Your task to perform on an android device: find photos in the google photos app Image 0: 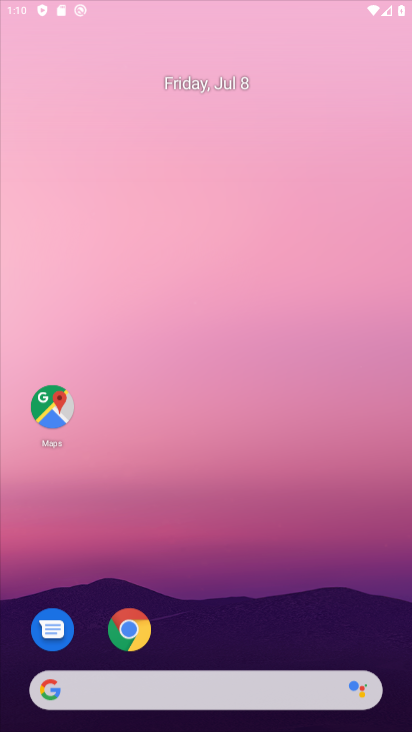
Step 0: press back button
Your task to perform on an android device: find photos in the google photos app Image 1: 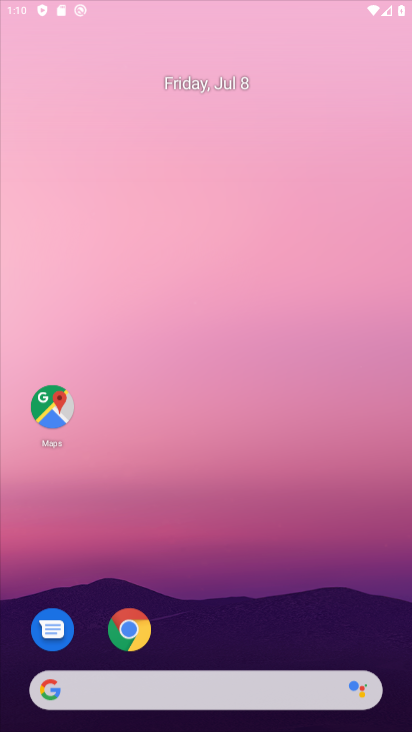
Step 1: click (172, 197)
Your task to perform on an android device: find photos in the google photos app Image 2: 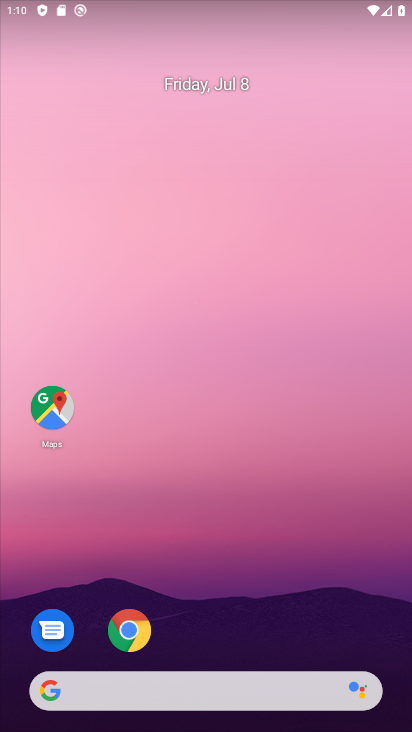
Step 2: drag from (263, 582) to (223, 160)
Your task to perform on an android device: find photos in the google photos app Image 3: 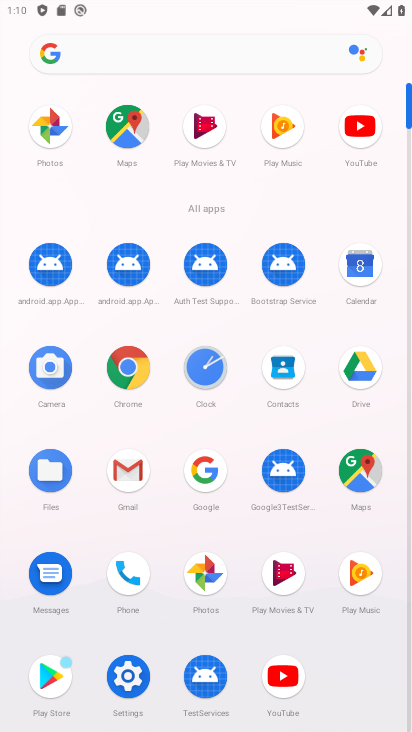
Step 3: click (200, 564)
Your task to perform on an android device: find photos in the google photos app Image 4: 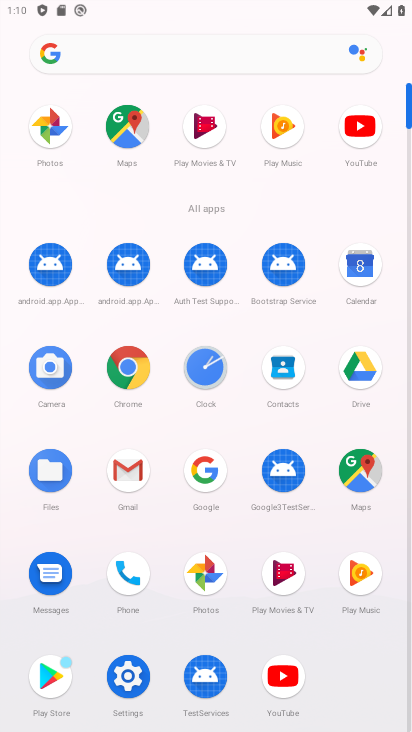
Step 4: click (200, 564)
Your task to perform on an android device: find photos in the google photos app Image 5: 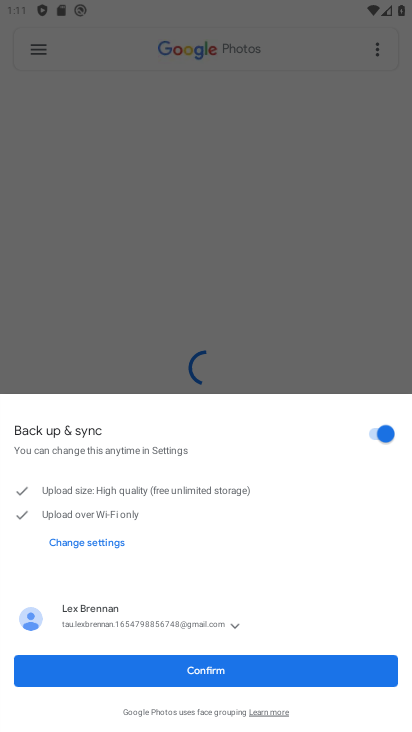
Step 5: click (233, 672)
Your task to perform on an android device: find photos in the google photos app Image 6: 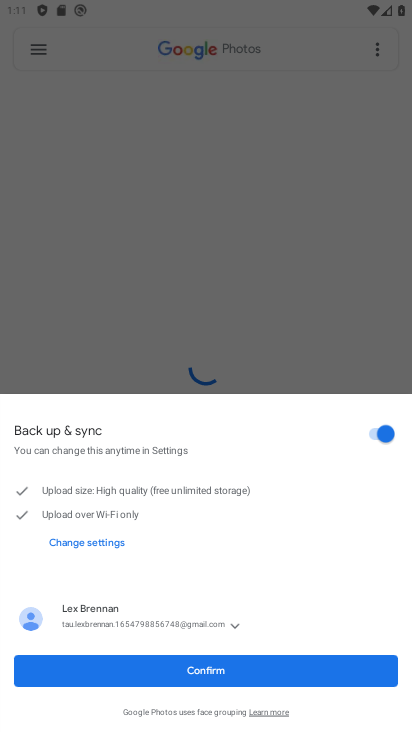
Step 6: click (239, 655)
Your task to perform on an android device: find photos in the google photos app Image 7: 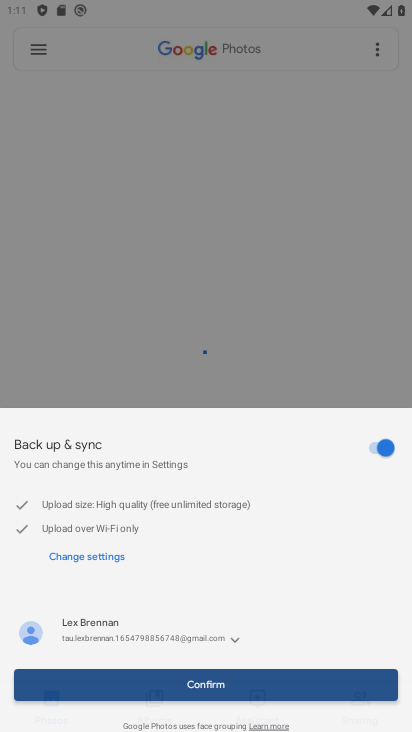
Step 7: click (240, 654)
Your task to perform on an android device: find photos in the google photos app Image 8: 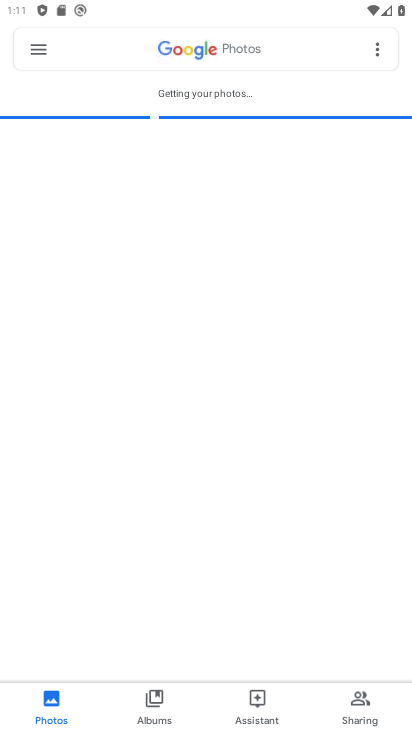
Step 8: click (243, 658)
Your task to perform on an android device: find photos in the google photos app Image 9: 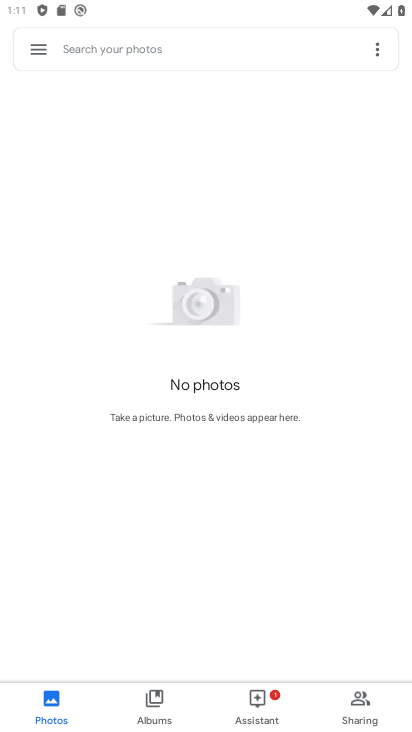
Step 9: press back button
Your task to perform on an android device: find photos in the google photos app Image 10: 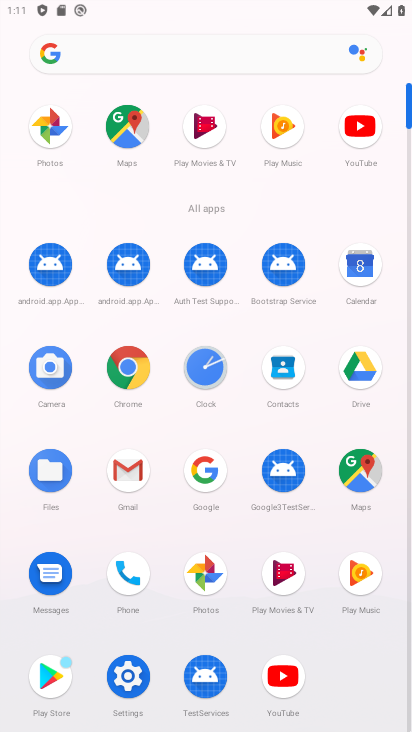
Step 10: click (209, 569)
Your task to perform on an android device: find photos in the google photos app Image 11: 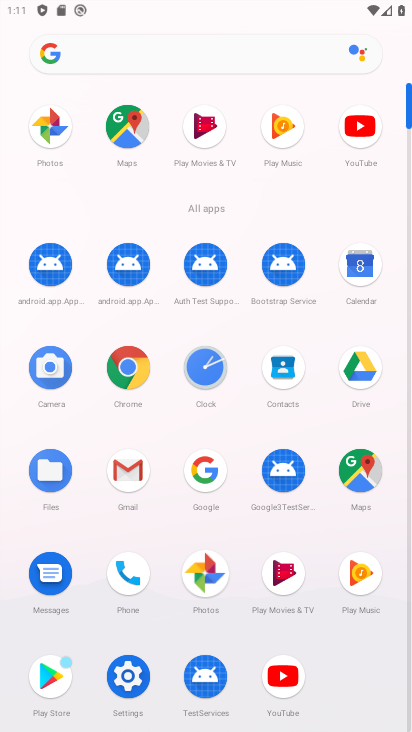
Step 11: click (207, 572)
Your task to perform on an android device: find photos in the google photos app Image 12: 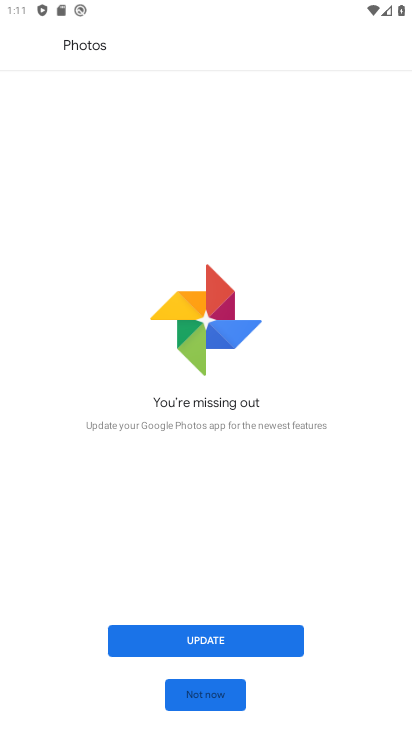
Step 12: click (207, 697)
Your task to perform on an android device: find photos in the google photos app Image 13: 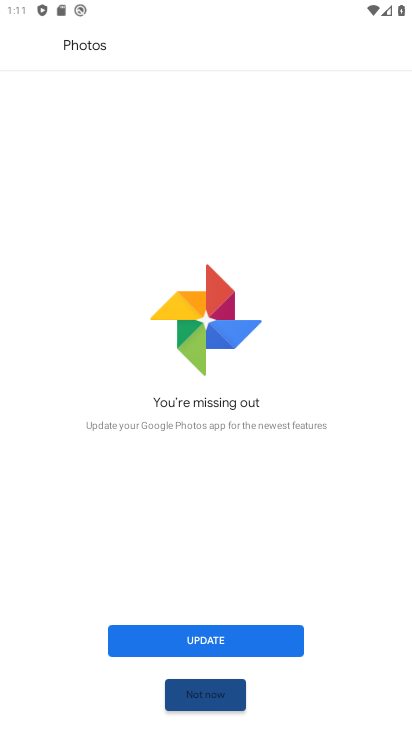
Step 13: click (207, 698)
Your task to perform on an android device: find photos in the google photos app Image 14: 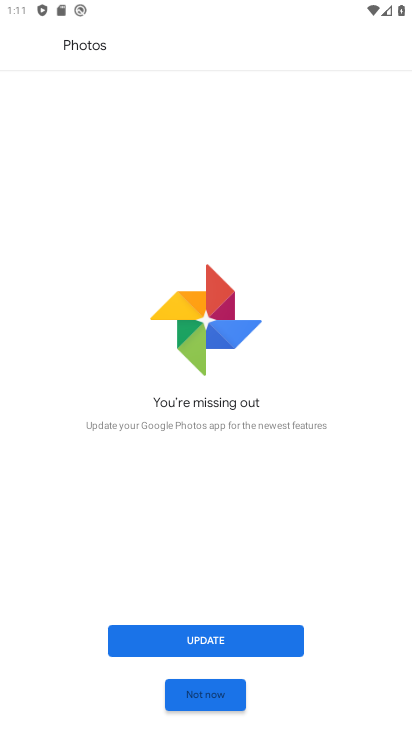
Step 14: click (207, 699)
Your task to perform on an android device: find photos in the google photos app Image 15: 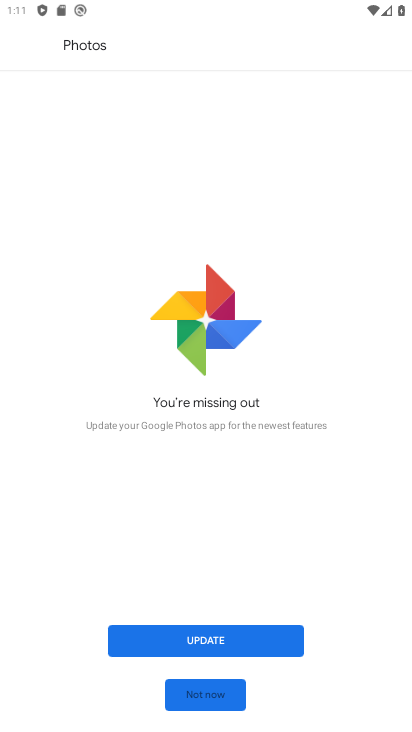
Step 15: click (207, 699)
Your task to perform on an android device: find photos in the google photos app Image 16: 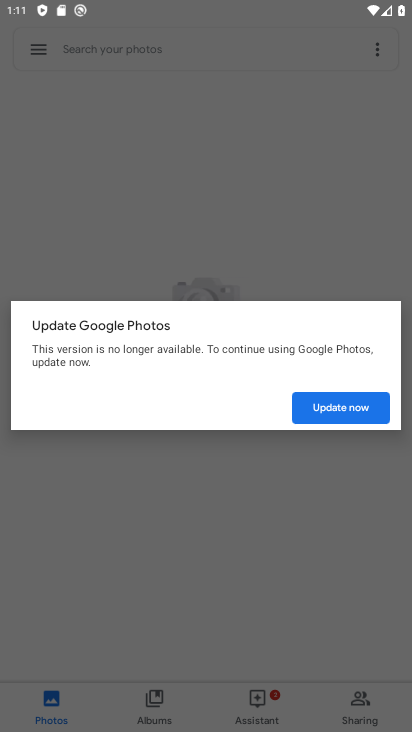
Step 16: click (207, 699)
Your task to perform on an android device: find photos in the google photos app Image 17: 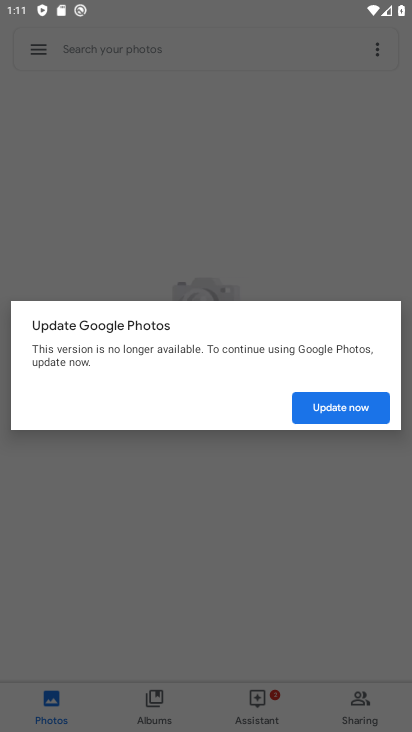
Step 17: click (208, 699)
Your task to perform on an android device: find photos in the google photos app Image 18: 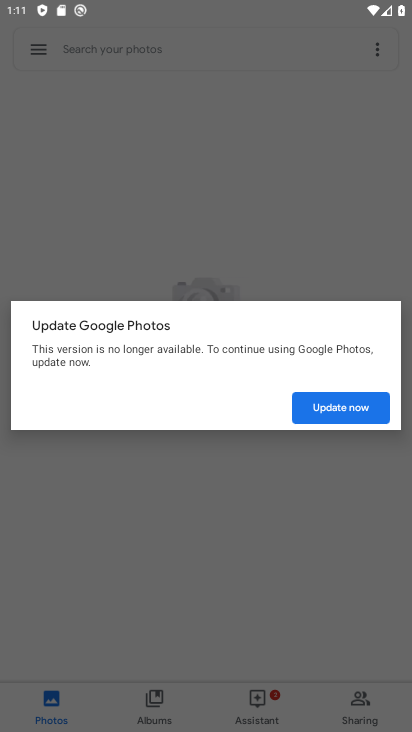
Step 18: click (346, 401)
Your task to perform on an android device: find photos in the google photos app Image 19: 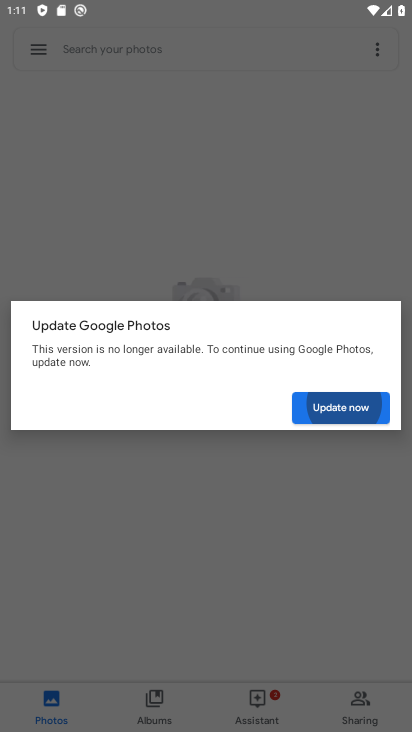
Step 19: click (342, 402)
Your task to perform on an android device: find photos in the google photos app Image 20: 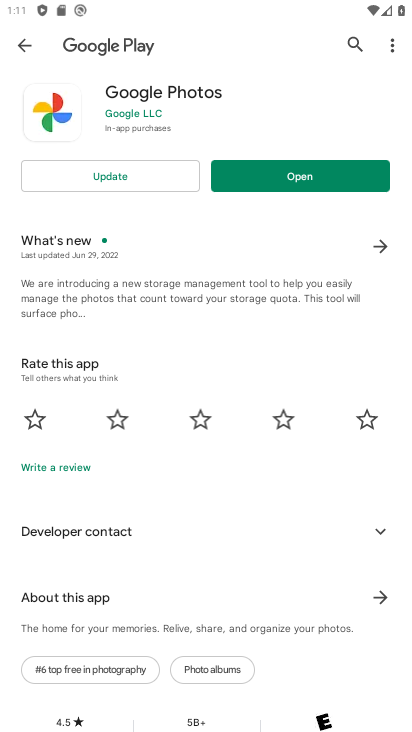
Step 20: click (299, 162)
Your task to perform on an android device: find photos in the google photos app Image 21: 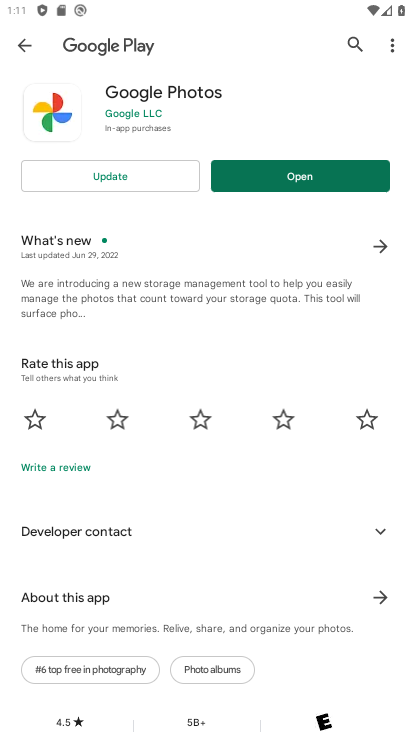
Step 21: click (302, 171)
Your task to perform on an android device: find photos in the google photos app Image 22: 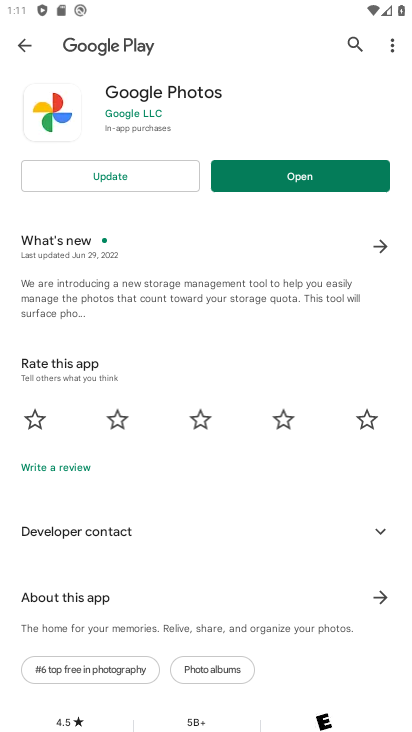
Step 22: click (302, 171)
Your task to perform on an android device: find photos in the google photos app Image 23: 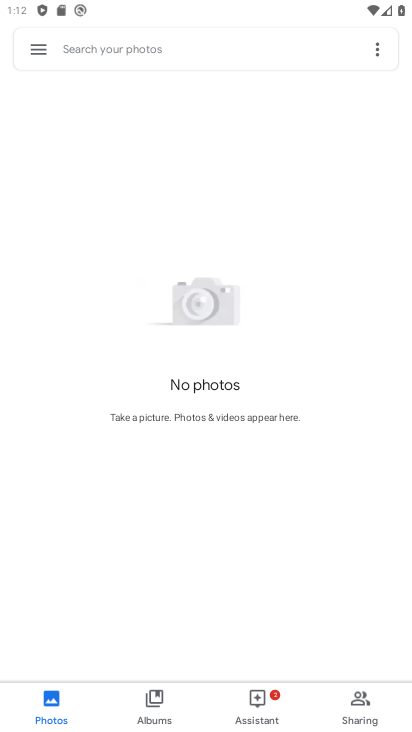
Step 23: task complete